Your task to perform on an android device: turn notification dots off Image 0: 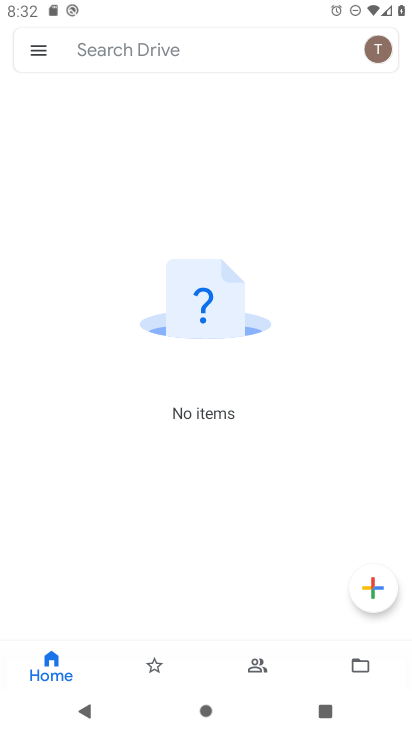
Step 0: press home button
Your task to perform on an android device: turn notification dots off Image 1: 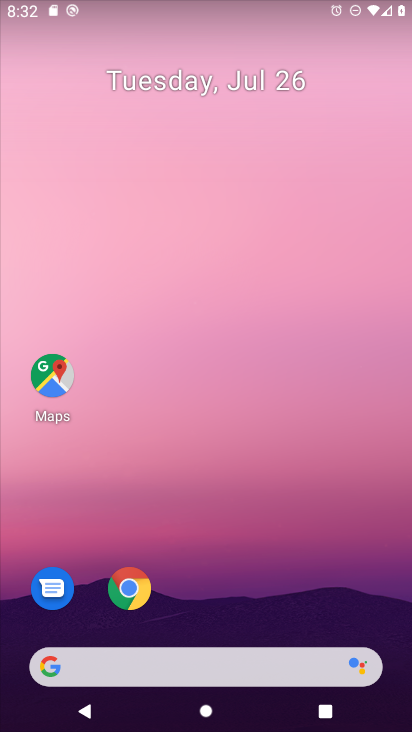
Step 1: drag from (206, 665) to (238, 178)
Your task to perform on an android device: turn notification dots off Image 2: 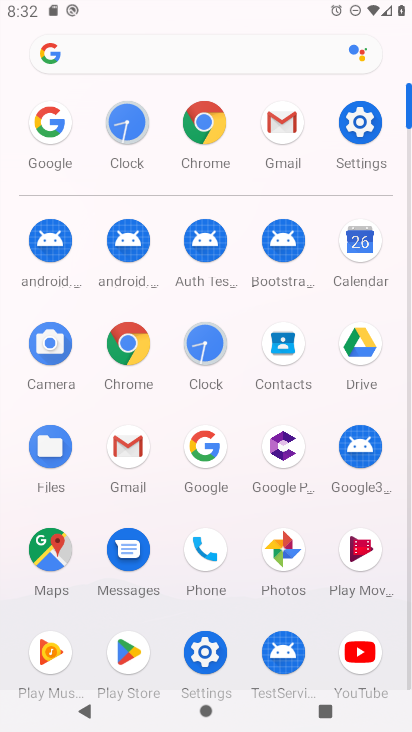
Step 2: click (370, 143)
Your task to perform on an android device: turn notification dots off Image 3: 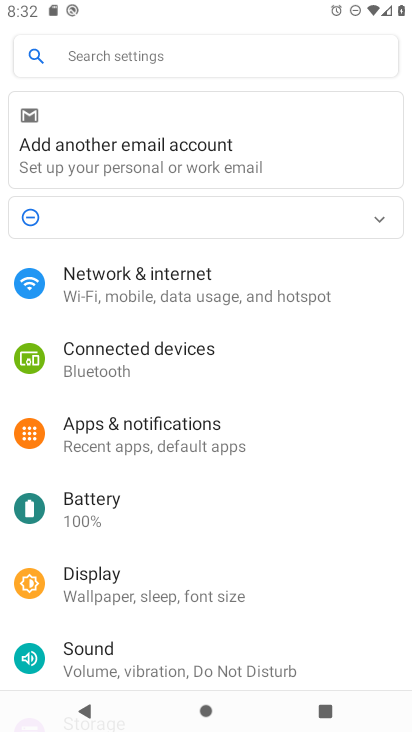
Step 3: click (151, 436)
Your task to perform on an android device: turn notification dots off Image 4: 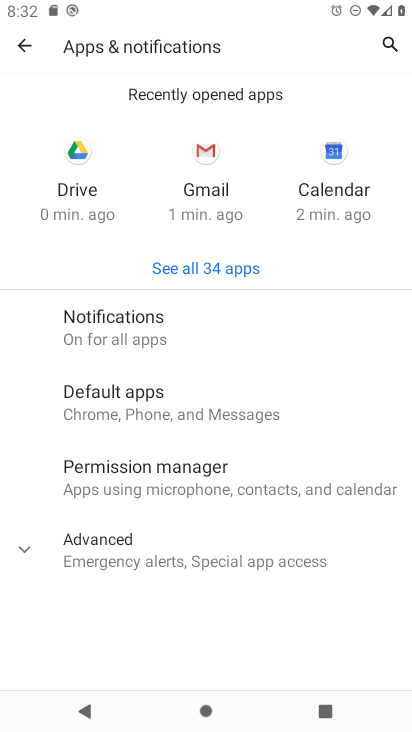
Step 4: click (182, 336)
Your task to perform on an android device: turn notification dots off Image 5: 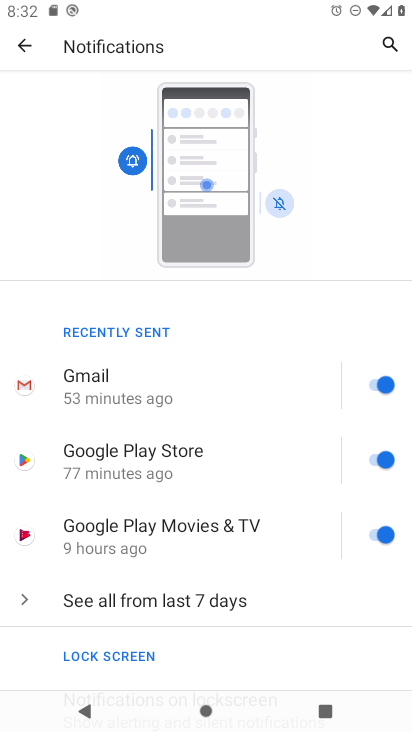
Step 5: drag from (164, 552) to (198, 289)
Your task to perform on an android device: turn notification dots off Image 6: 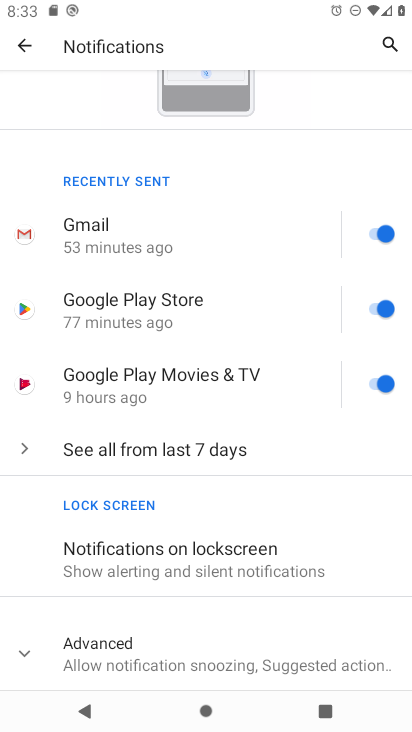
Step 6: click (241, 661)
Your task to perform on an android device: turn notification dots off Image 7: 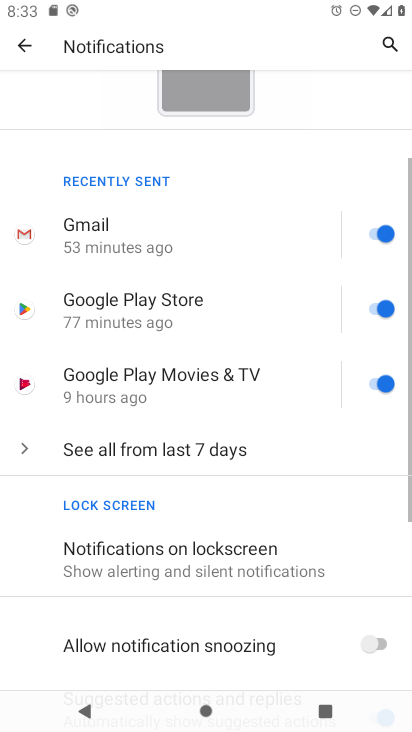
Step 7: drag from (242, 596) to (300, 219)
Your task to perform on an android device: turn notification dots off Image 8: 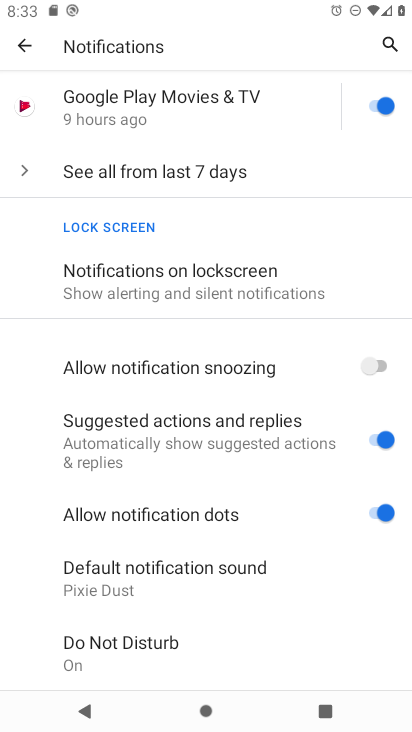
Step 8: click (264, 517)
Your task to perform on an android device: turn notification dots off Image 9: 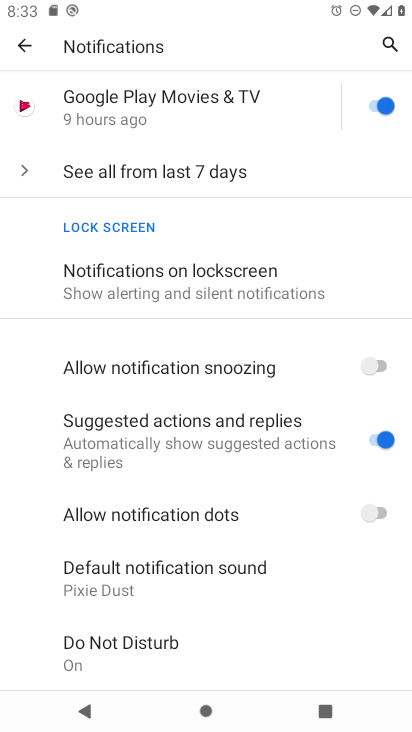
Step 9: task complete